Your task to perform on an android device: Go to Google Image 0: 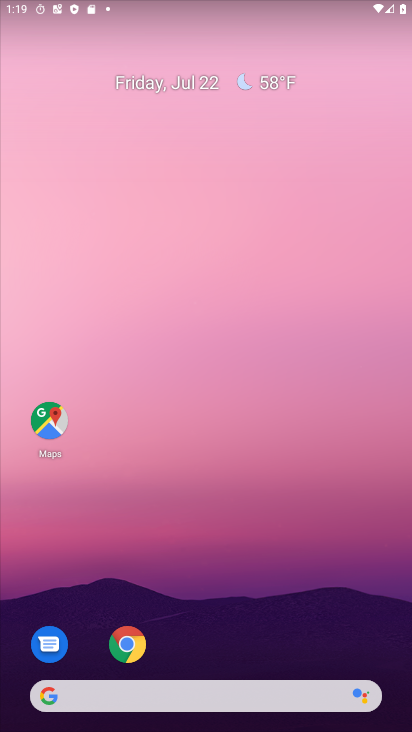
Step 0: drag from (200, 578) to (261, 101)
Your task to perform on an android device: Go to Google Image 1: 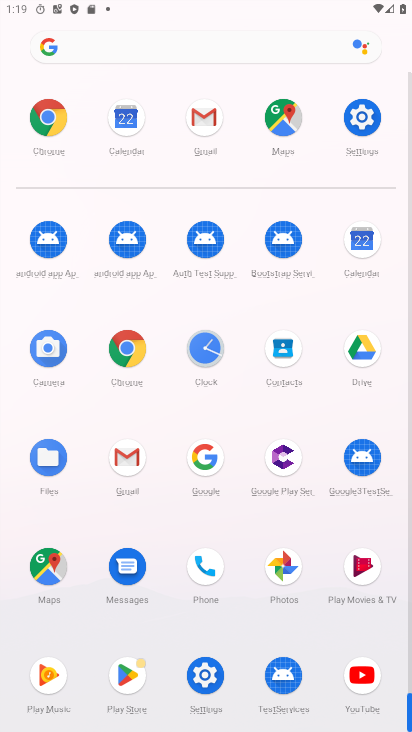
Step 1: click (208, 459)
Your task to perform on an android device: Go to Google Image 2: 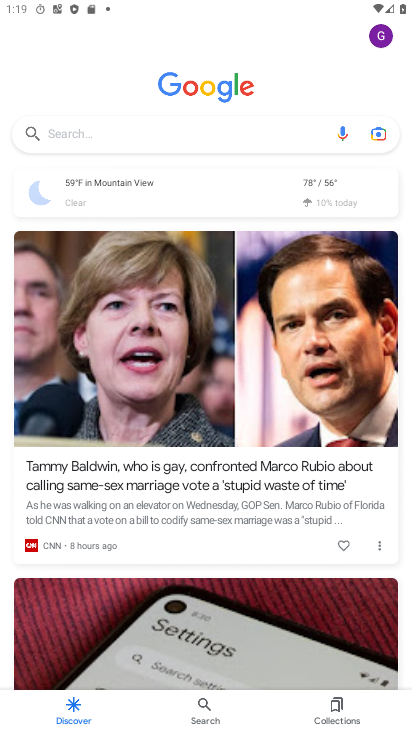
Step 2: task complete